Your task to perform on an android device: Search for sushi restaurants on Maps Image 0: 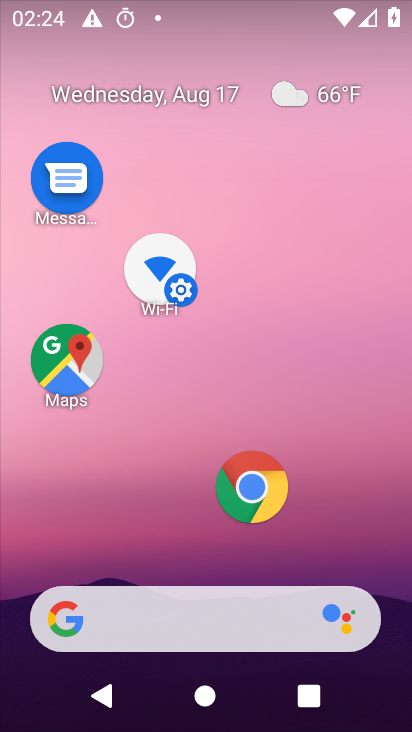
Step 0: press home button
Your task to perform on an android device: Search for sushi restaurants on Maps Image 1: 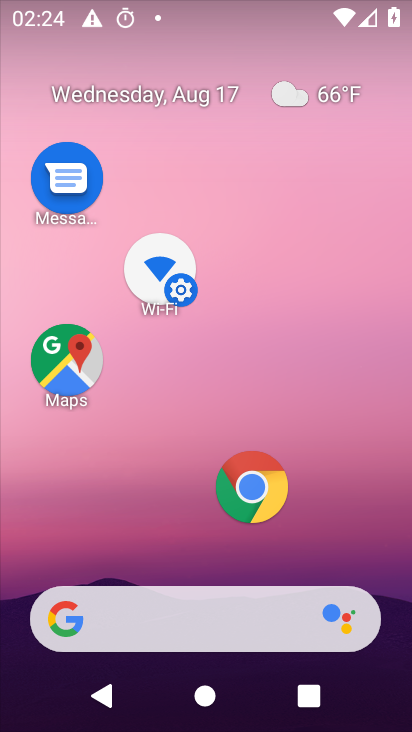
Step 1: click (71, 373)
Your task to perform on an android device: Search for sushi restaurants on Maps Image 2: 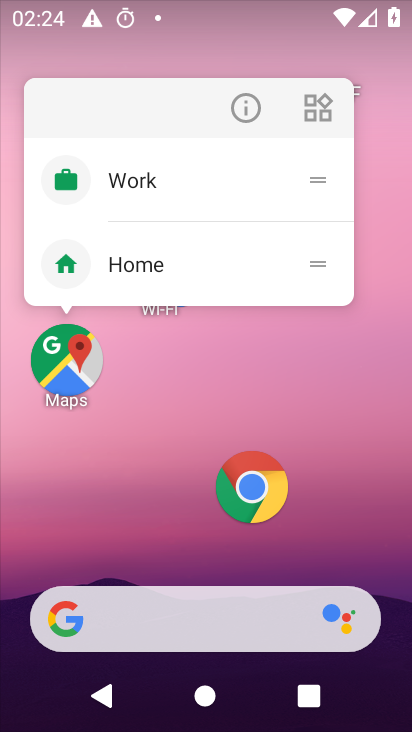
Step 2: click (72, 377)
Your task to perform on an android device: Search for sushi restaurants on Maps Image 3: 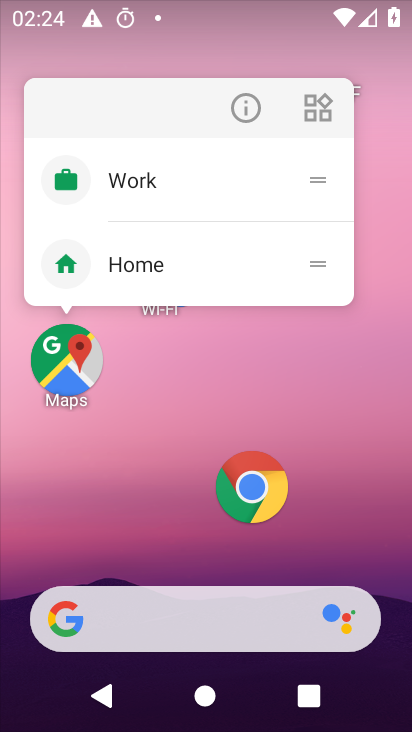
Step 3: click (72, 377)
Your task to perform on an android device: Search for sushi restaurants on Maps Image 4: 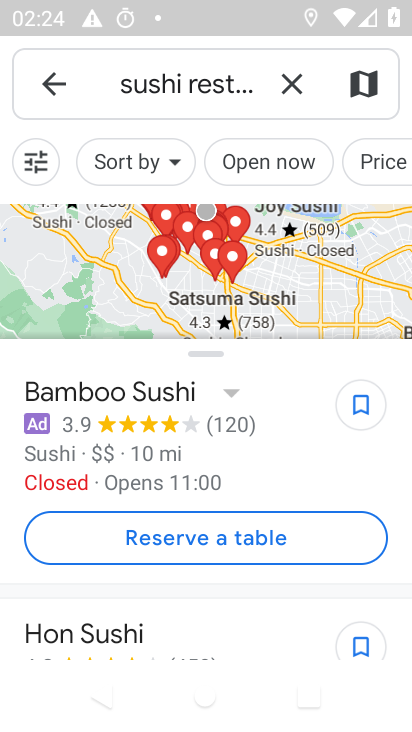
Step 4: task complete